Your task to perform on an android device: set default search engine in the chrome app Image 0: 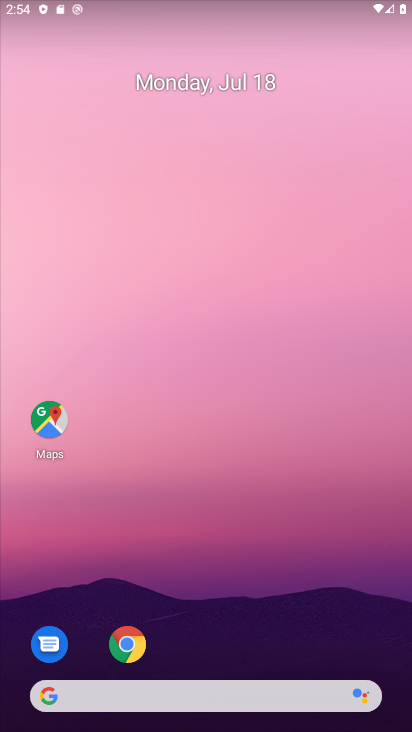
Step 0: click (127, 645)
Your task to perform on an android device: set default search engine in the chrome app Image 1: 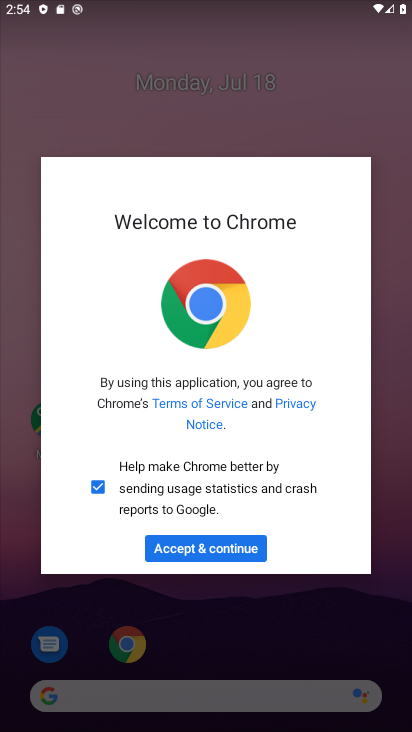
Step 1: click (199, 546)
Your task to perform on an android device: set default search engine in the chrome app Image 2: 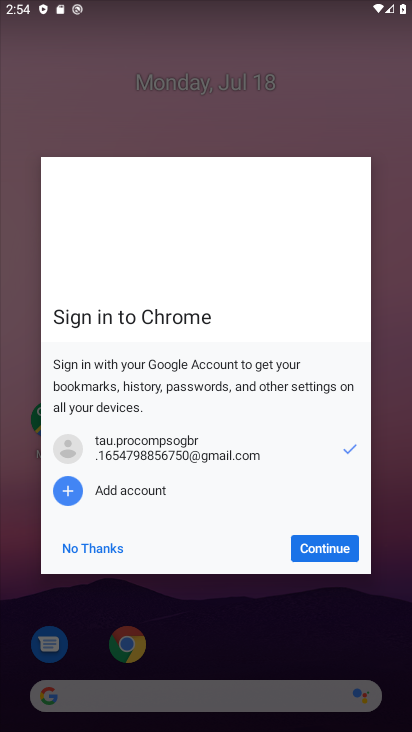
Step 2: click (325, 546)
Your task to perform on an android device: set default search engine in the chrome app Image 3: 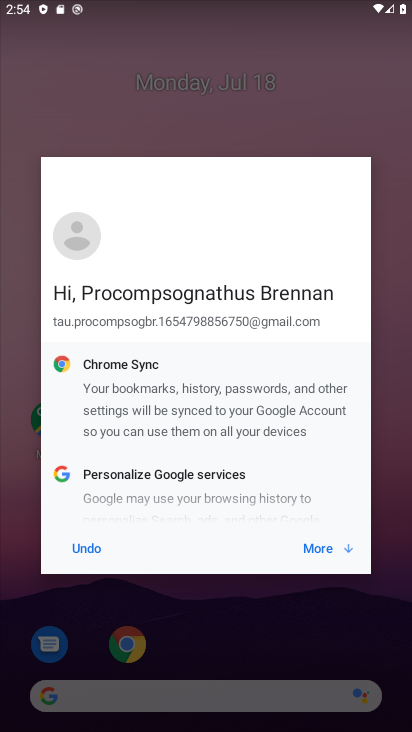
Step 3: click (325, 546)
Your task to perform on an android device: set default search engine in the chrome app Image 4: 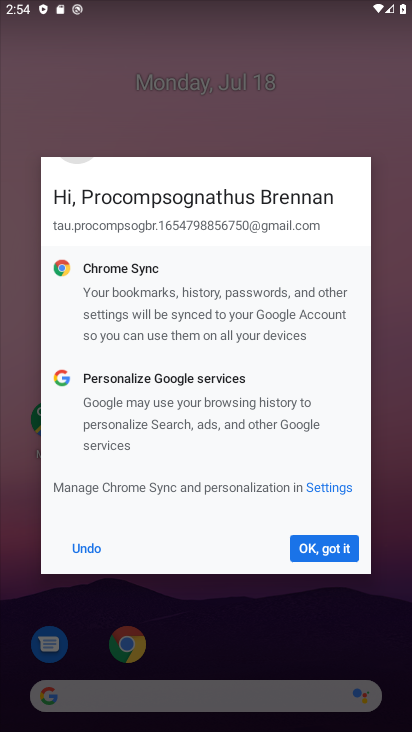
Step 4: click (325, 546)
Your task to perform on an android device: set default search engine in the chrome app Image 5: 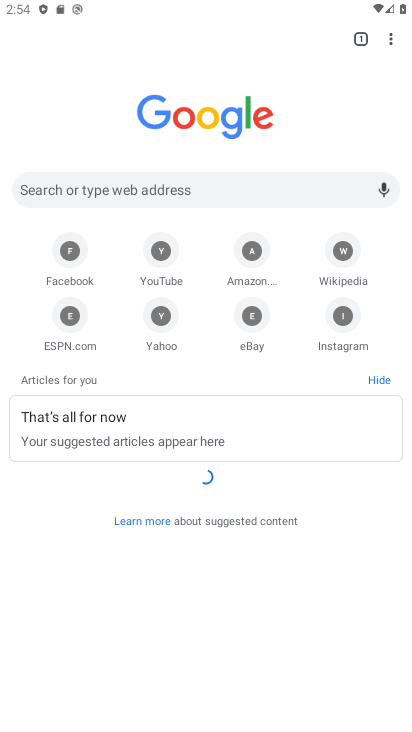
Step 5: click (388, 44)
Your task to perform on an android device: set default search engine in the chrome app Image 6: 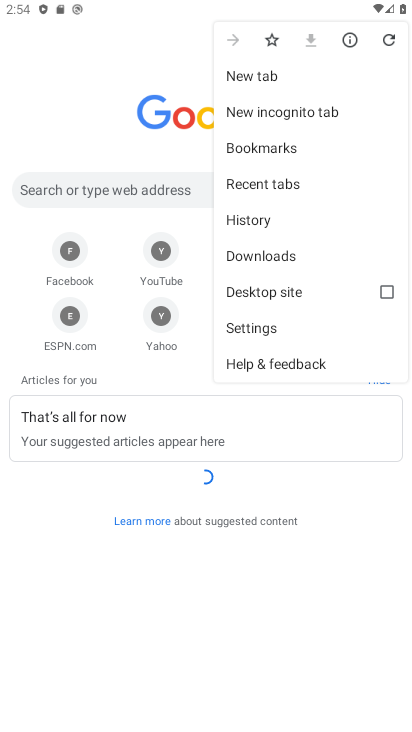
Step 6: click (250, 320)
Your task to perform on an android device: set default search engine in the chrome app Image 7: 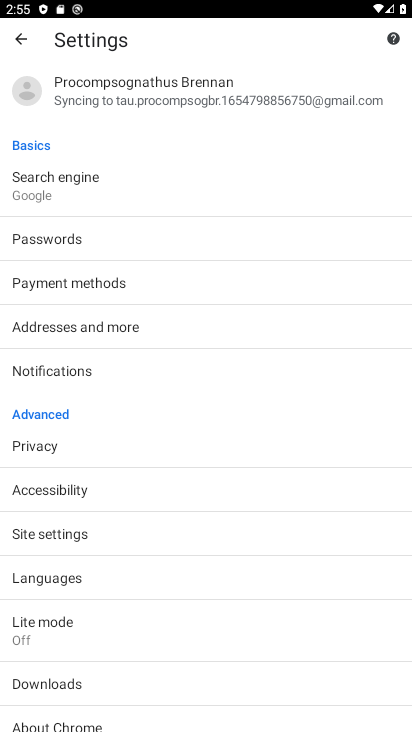
Step 7: click (51, 180)
Your task to perform on an android device: set default search engine in the chrome app Image 8: 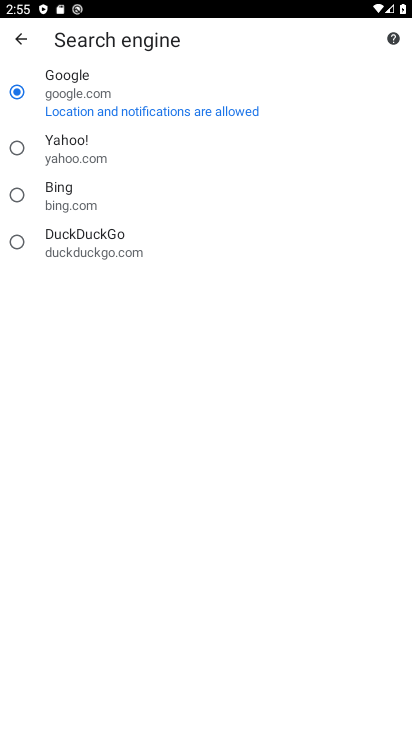
Step 8: click (4, 148)
Your task to perform on an android device: set default search engine in the chrome app Image 9: 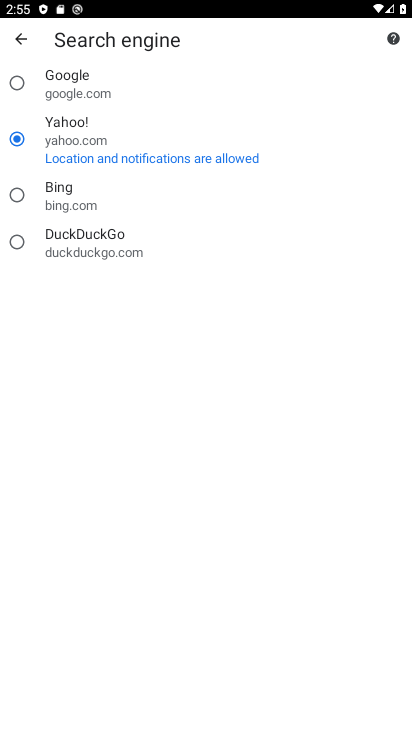
Step 9: task complete